Your task to perform on an android device: toggle translation in the chrome app Image 0: 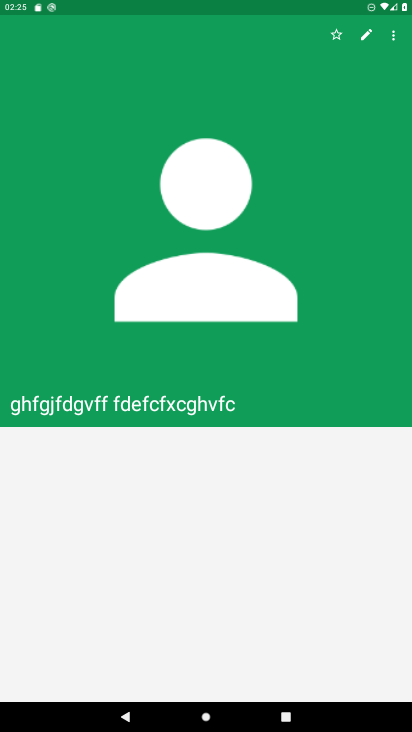
Step 0: click (201, 497)
Your task to perform on an android device: toggle translation in the chrome app Image 1: 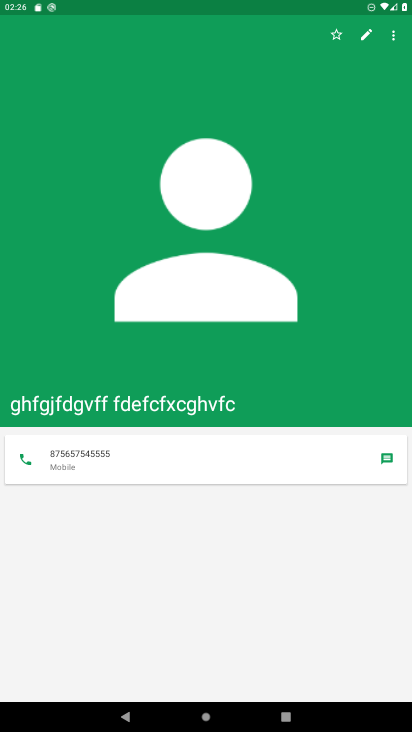
Step 1: press home button
Your task to perform on an android device: toggle translation in the chrome app Image 2: 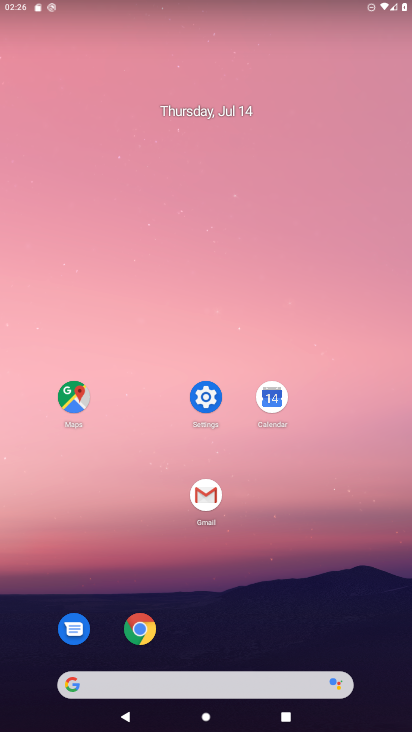
Step 2: click (145, 630)
Your task to perform on an android device: toggle translation in the chrome app Image 3: 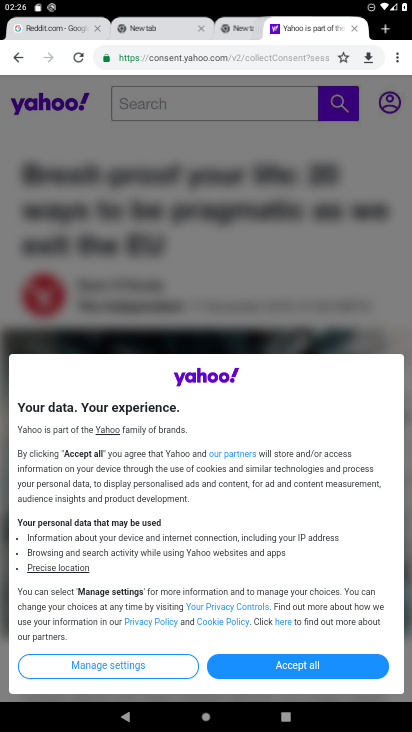
Step 3: press home button
Your task to perform on an android device: toggle translation in the chrome app Image 4: 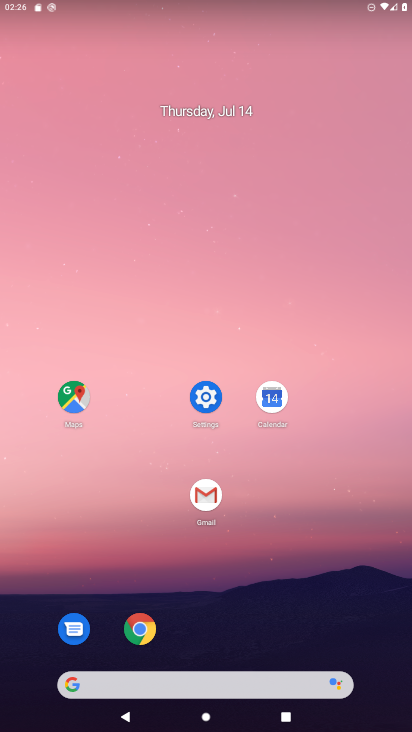
Step 4: click (142, 623)
Your task to perform on an android device: toggle translation in the chrome app Image 5: 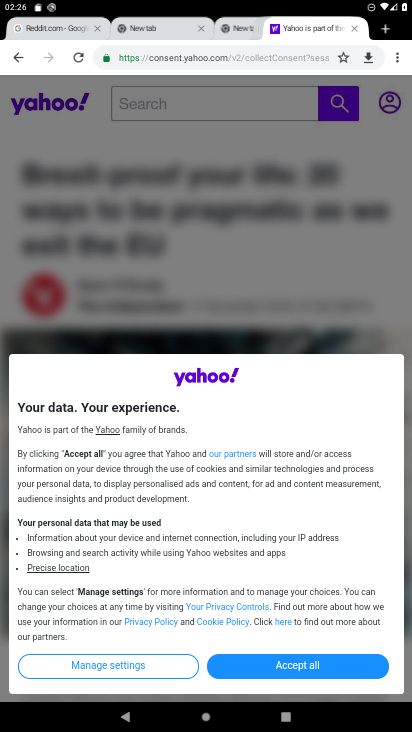
Step 5: click (397, 53)
Your task to perform on an android device: toggle translation in the chrome app Image 6: 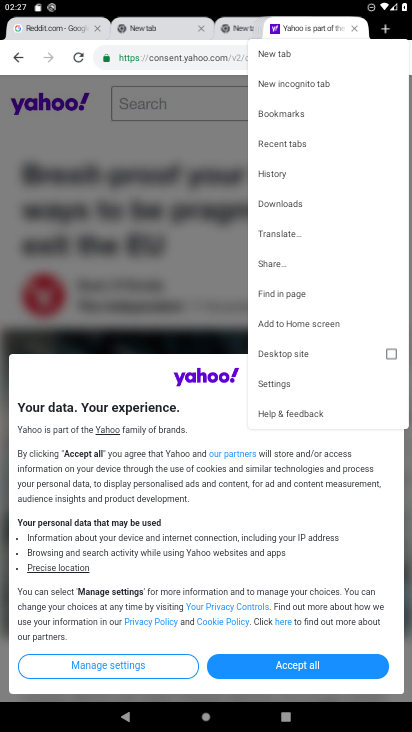
Step 6: click (268, 379)
Your task to perform on an android device: toggle translation in the chrome app Image 7: 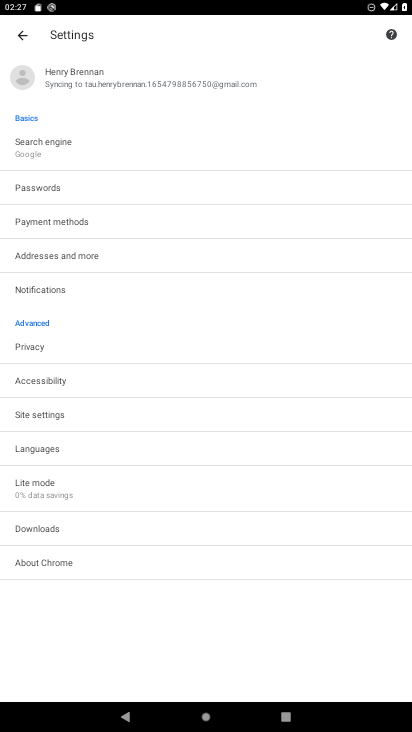
Step 7: click (37, 440)
Your task to perform on an android device: toggle translation in the chrome app Image 8: 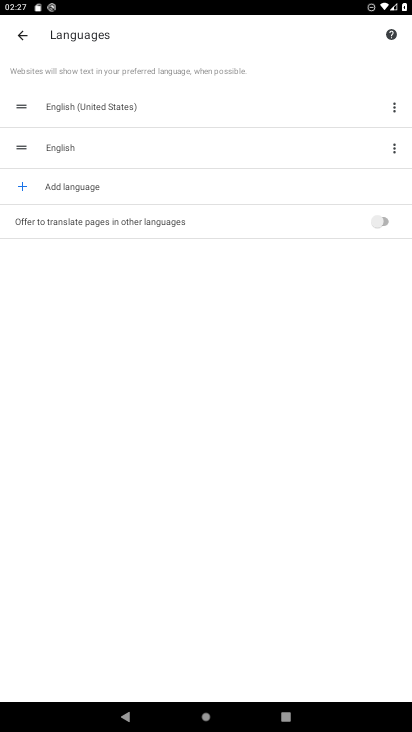
Step 8: click (378, 219)
Your task to perform on an android device: toggle translation in the chrome app Image 9: 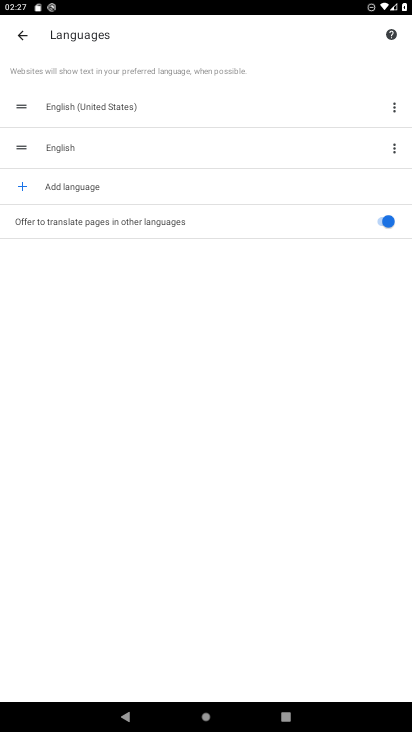
Step 9: task complete